Your task to perform on an android device: turn off airplane mode Image 0: 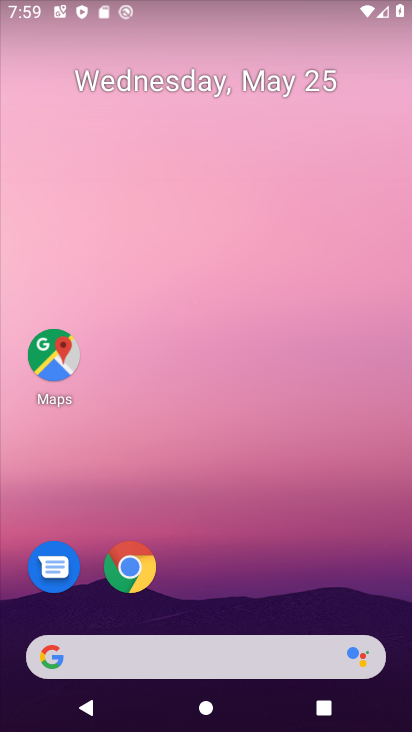
Step 0: drag from (331, 557) to (260, 47)
Your task to perform on an android device: turn off airplane mode Image 1: 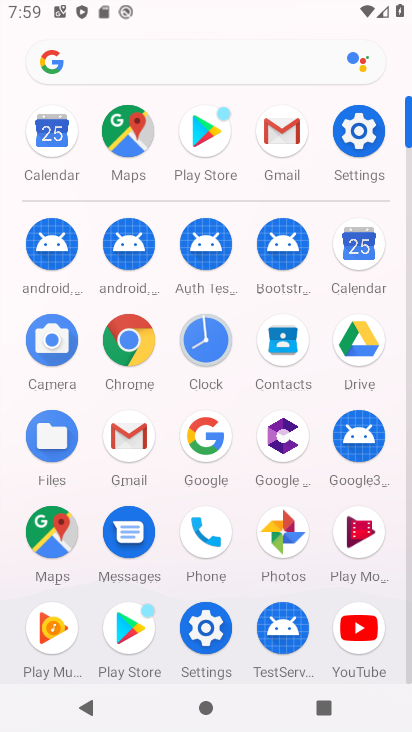
Step 1: click (359, 110)
Your task to perform on an android device: turn off airplane mode Image 2: 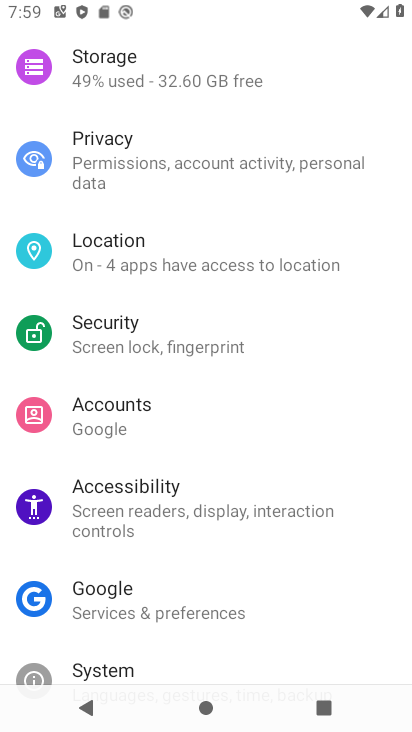
Step 2: drag from (259, 166) to (251, 583)
Your task to perform on an android device: turn off airplane mode Image 3: 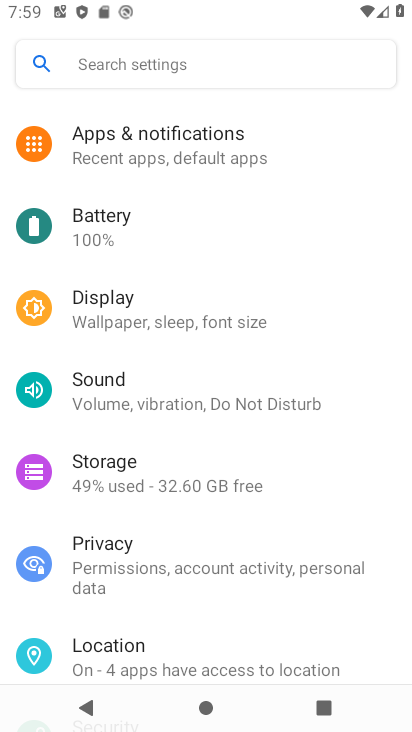
Step 3: drag from (187, 157) to (160, 519)
Your task to perform on an android device: turn off airplane mode Image 4: 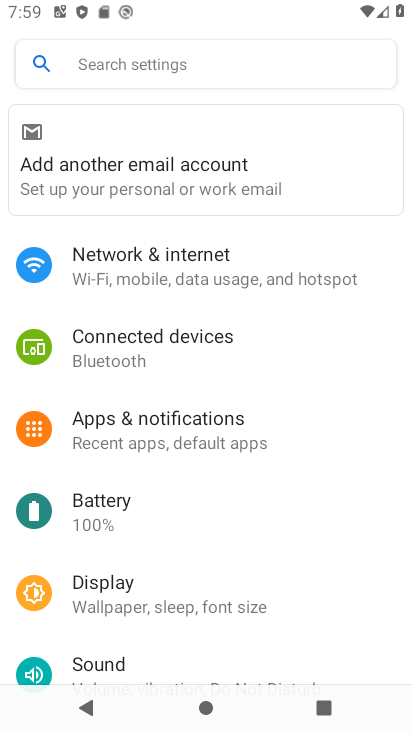
Step 4: click (168, 282)
Your task to perform on an android device: turn off airplane mode Image 5: 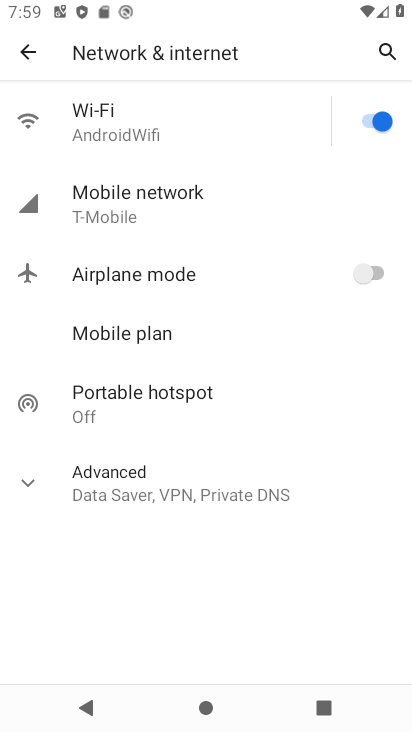
Step 5: task complete